Your task to perform on an android device: Go to settings Image 0: 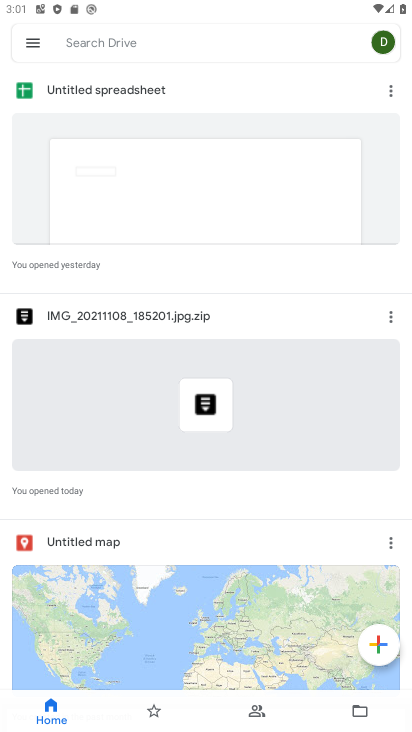
Step 0: press home button
Your task to perform on an android device: Go to settings Image 1: 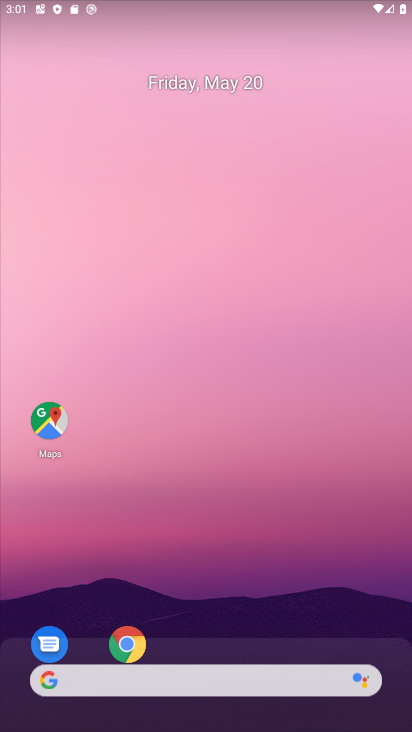
Step 1: drag from (301, 602) to (248, 179)
Your task to perform on an android device: Go to settings Image 2: 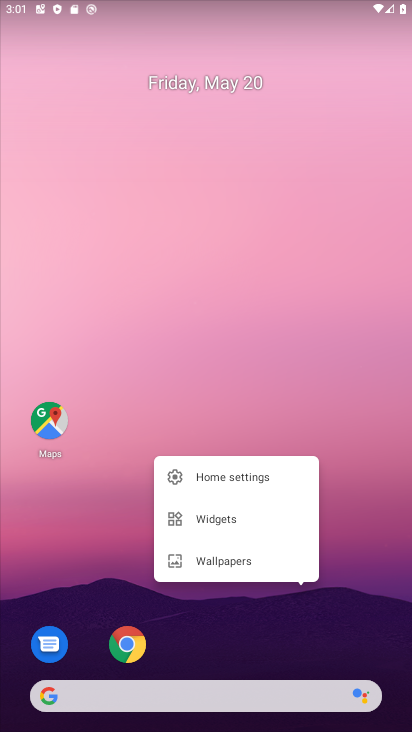
Step 2: click (307, 316)
Your task to perform on an android device: Go to settings Image 3: 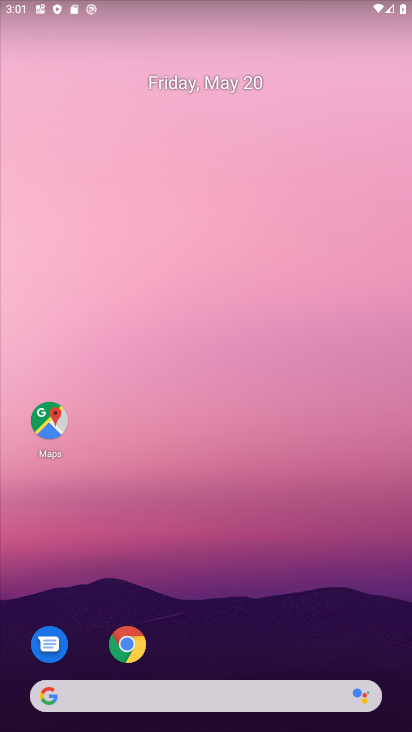
Step 3: drag from (309, 575) to (247, 77)
Your task to perform on an android device: Go to settings Image 4: 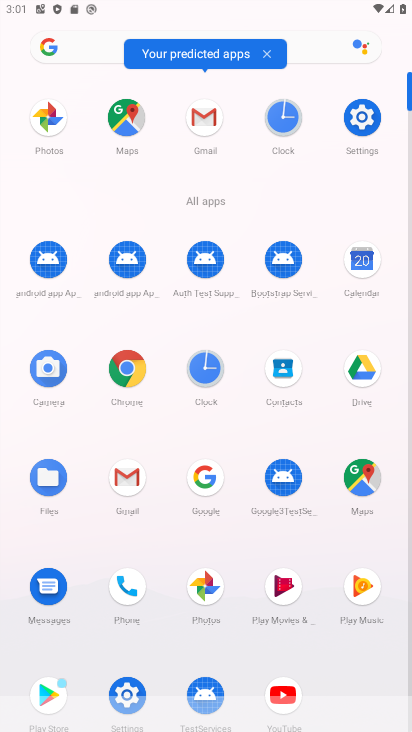
Step 4: click (356, 123)
Your task to perform on an android device: Go to settings Image 5: 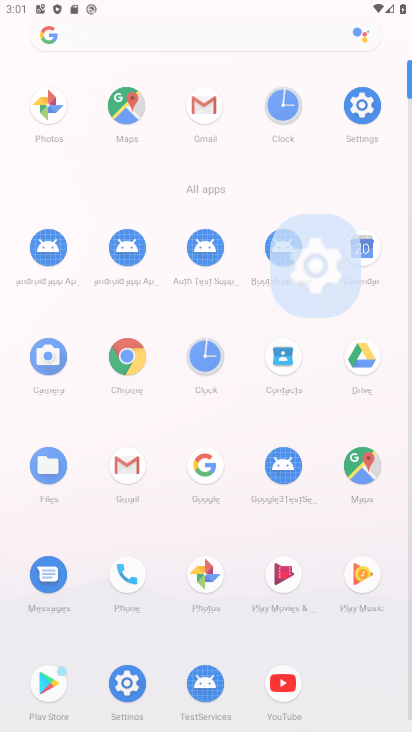
Step 5: task complete